Your task to perform on an android device: toggle improve location accuracy Image 0: 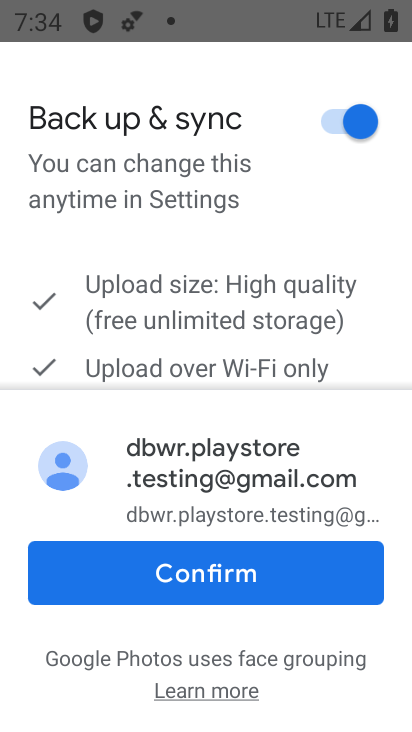
Step 0: press home button
Your task to perform on an android device: toggle improve location accuracy Image 1: 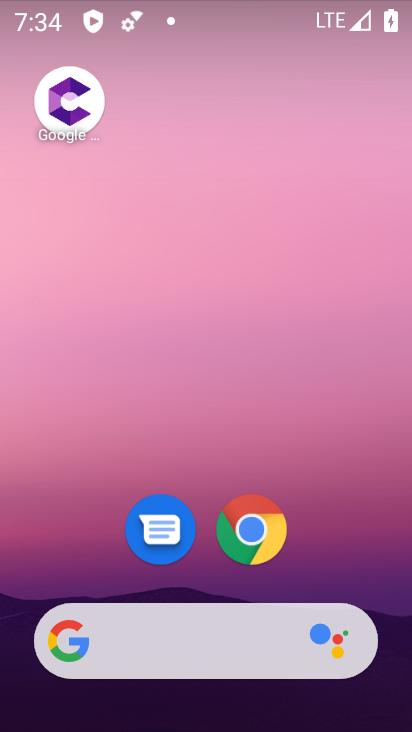
Step 1: drag from (364, 547) to (374, 173)
Your task to perform on an android device: toggle improve location accuracy Image 2: 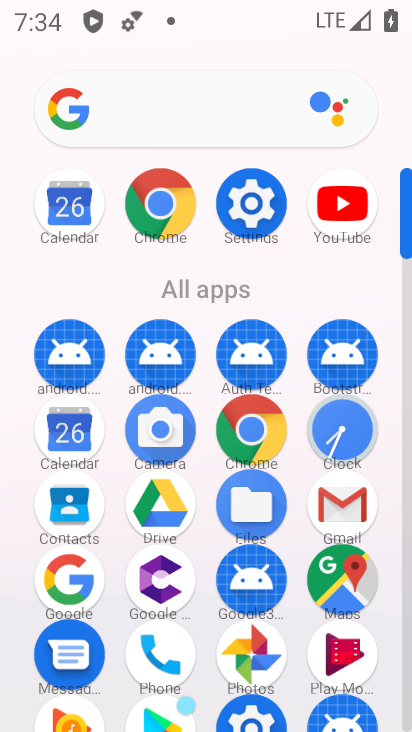
Step 2: click (264, 222)
Your task to perform on an android device: toggle improve location accuracy Image 3: 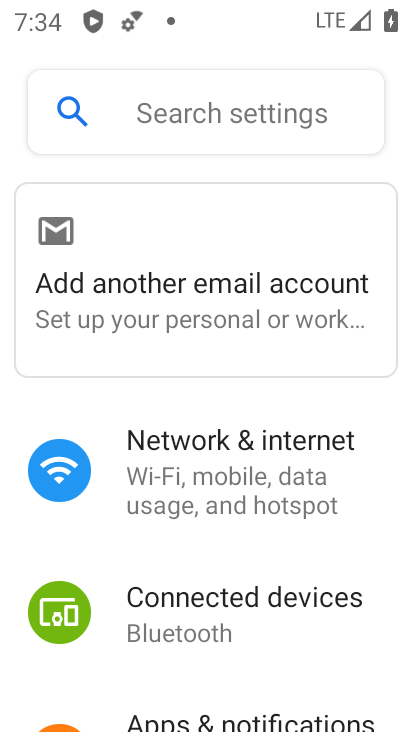
Step 3: drag from (361, 387) to (372, 294)
Your task to perform on an android device: toggle improve location accuracy Image 4: 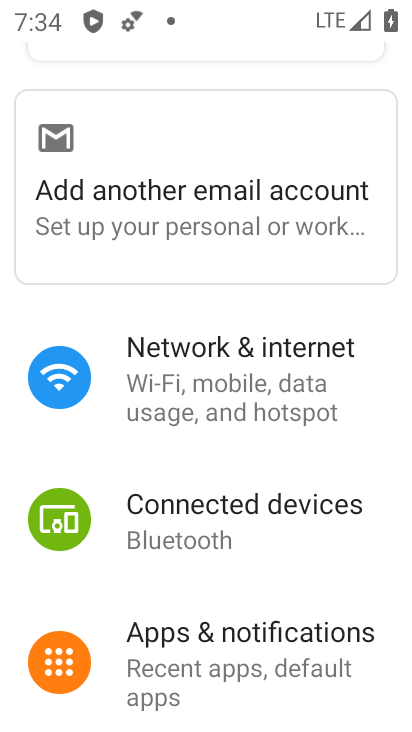
Step 4: drag from (372, 438) to (377, 276)
Your task to perform on an android device: toggle improve location accuracy Image 5: 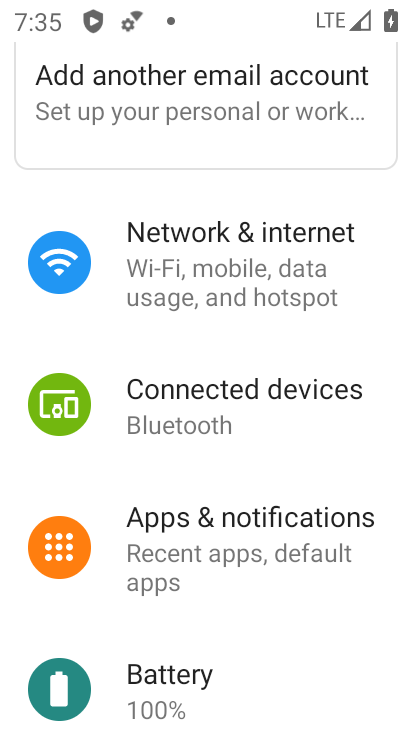
Step 5: drag from (351, 460) to (366, 335)
Your task to perform on an android device: toggle improve location accuracy Image 6: 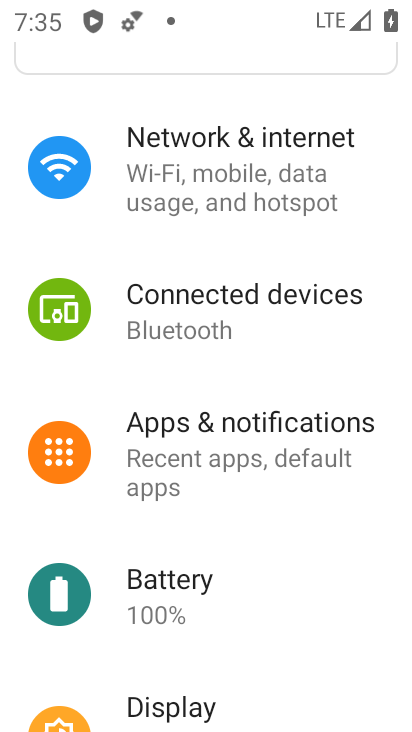
Step 6: drag from (347, 499) to (340, 362)
Your task to perform on an android device: toggle improve location accuracy Image 7: 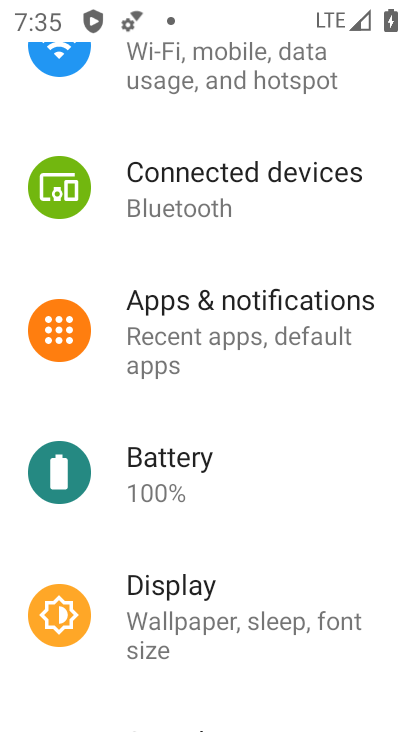
Step 7: drag from (349, 504) to (343, 359)
Your task to perform on an android device: toggle improve location accuracy Image 8: 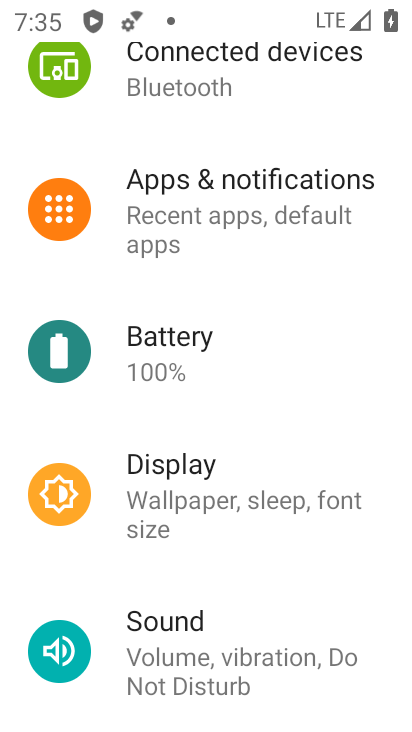
Step 8: drag from (353, 553) to (354, 426)
Your task to perform on an android device: toggle improve location accuracy Image 9: 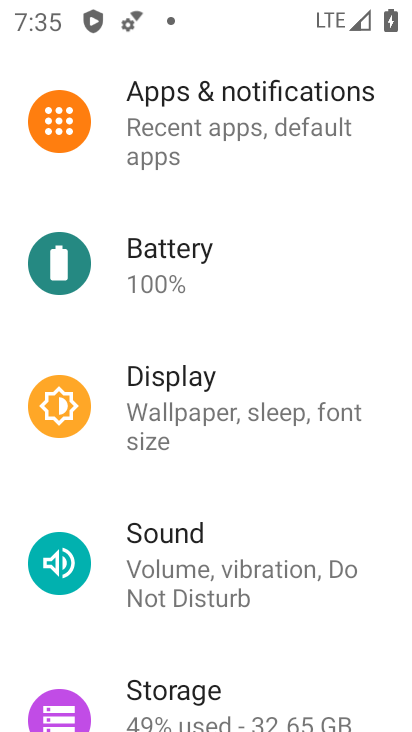
Step 9: drag from (361, 602) to (368, 511)
Your task to perform on an android device: toggle improve location accuracy Image 10: 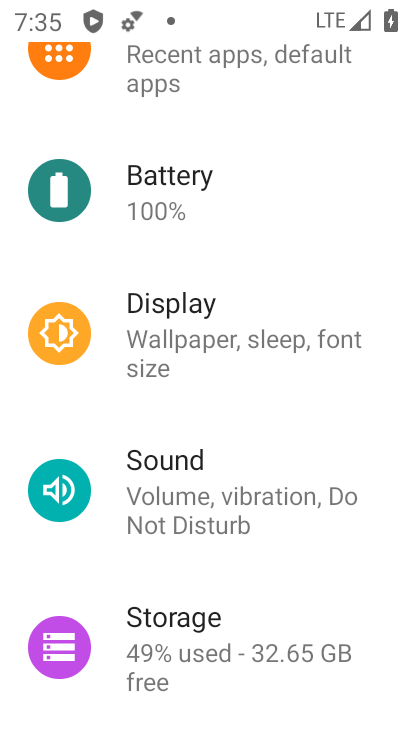
Step 10: drag from (371, 618) to (378, 484)
Your task to perform on an android device: toggle improve location accuracy Image 11: 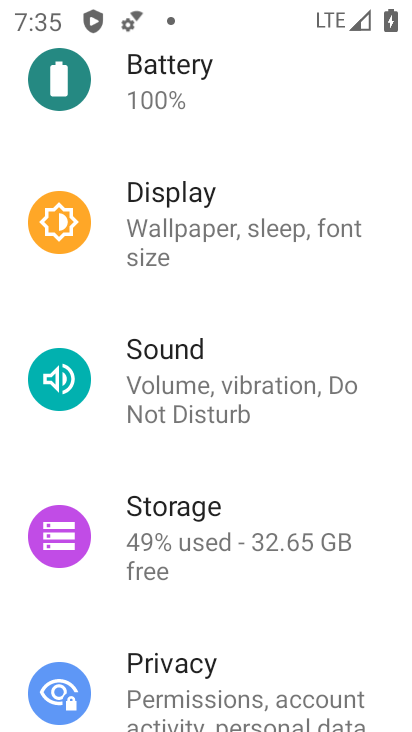
Step 11: drag from (390, 597) to (384, 426)
Your task to perform on an android device: toggle improve location accuracy Image 12: 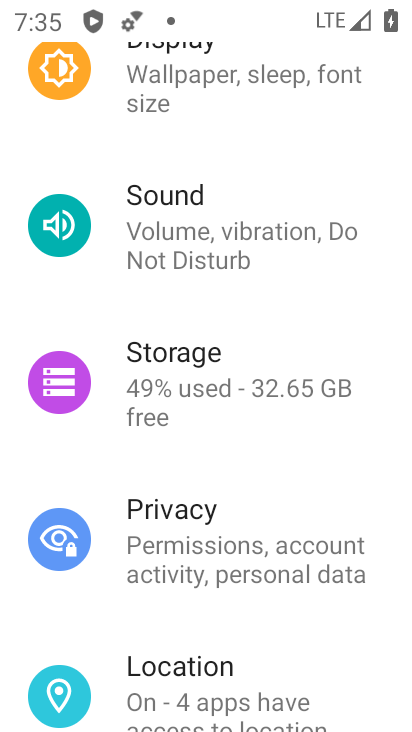
Step 12: drag from (362, 636) to (359, 451)
Your task to perform on an android device: toggle improve location accuracy Image 13: 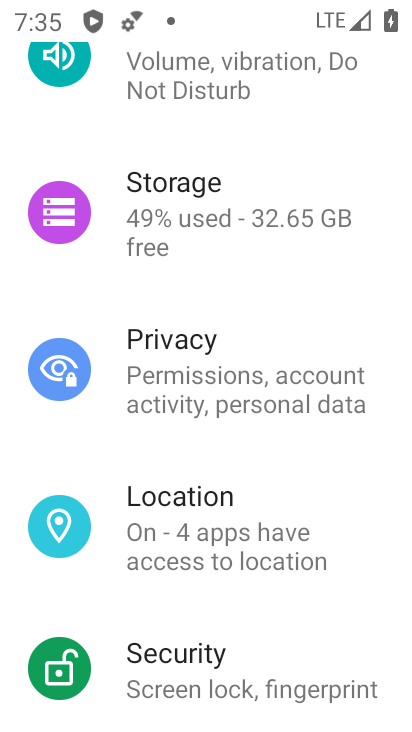
Step 13: click (279, 534)
Your task to perform on an android device: toggle improve location accuracy Image 14: 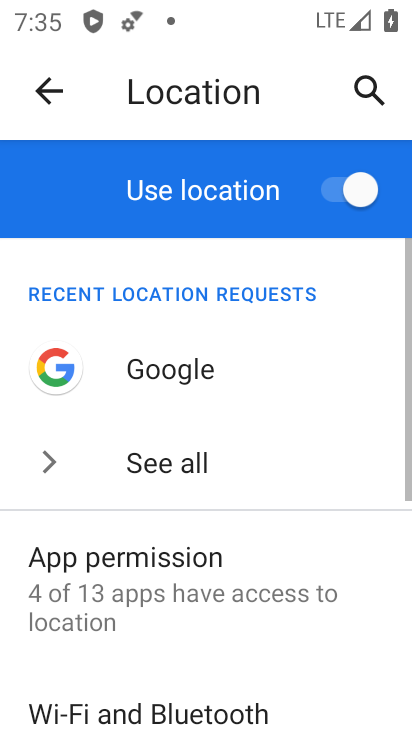
Step 14: drag from (348, 551) to (352, 453)
Your task to perform on an android device: toggle improve location accuracy Image 15: 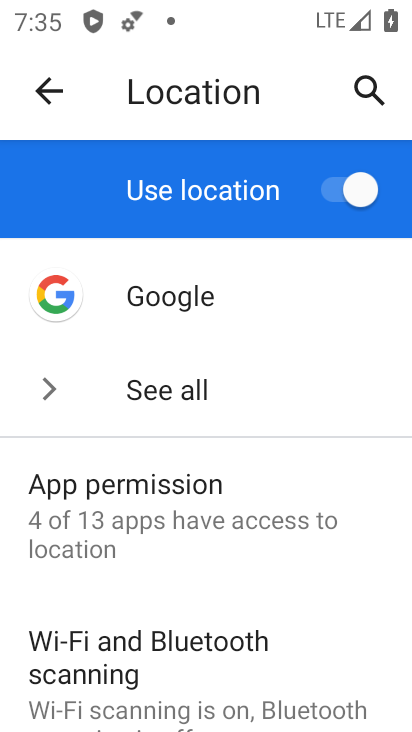
Step 15: drag from (349, 599) to (356, 435)
Your task to perform on an android device: toggle improve location accuracy Image 16: 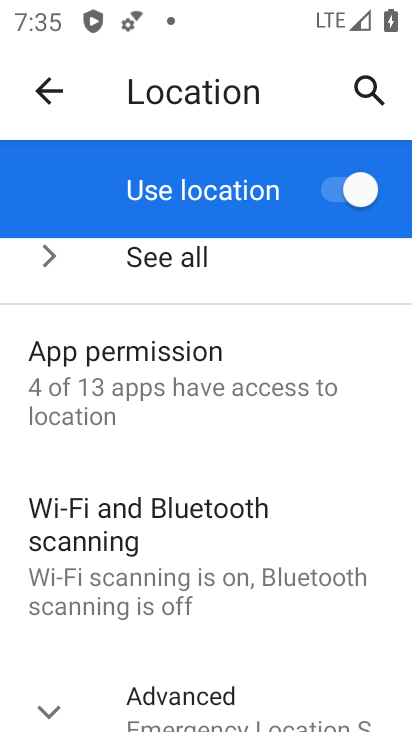
Step 16: drag from (343, 647) to (343, 444)
Your task to perform on an android device: toggle improve location accuracy Image 17: 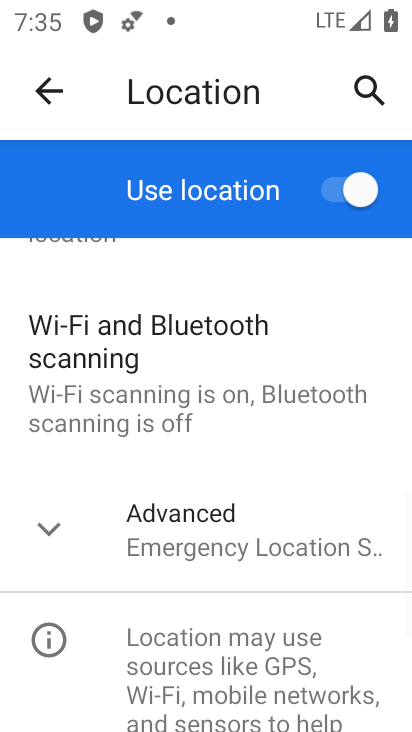
Step 17: drag from (318, 633) to (339, 472)
Your task to perform on an android device: toggle improve location accuracy Image 18: 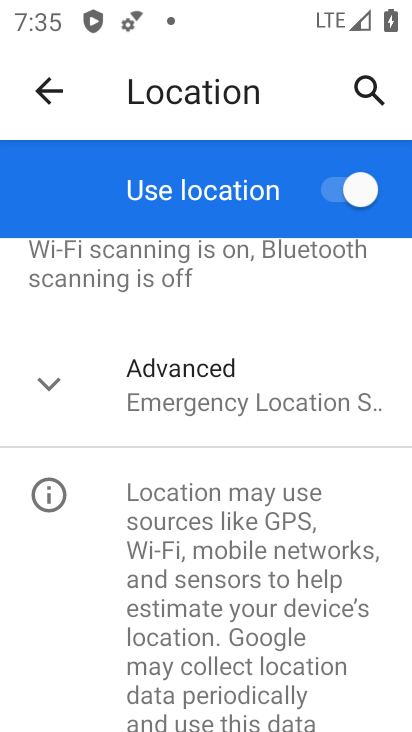
Step 18: click (313, 410)
Your task to perform on an android device: toggle improve location accuracy Image 19: 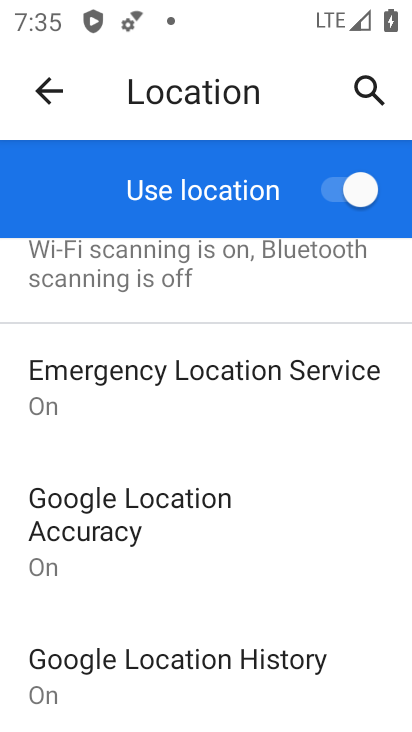
Step 19: drag from (304, 585) to (307, 478)
Your task to perform on an android device: toggle improve location accuracy Image 20: 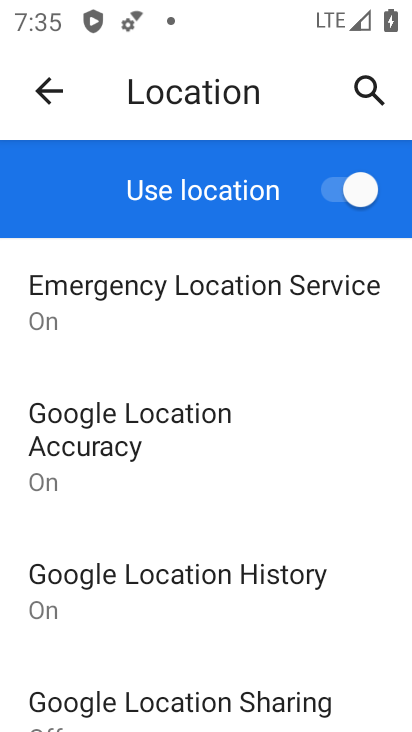
Step 20: drag from (334, 634) to (346, 438)
Your task to perform on an android device: toggle improve location accuracy Image 21: 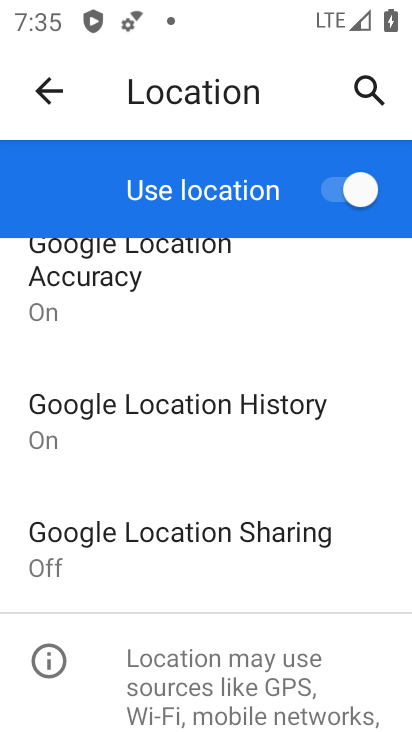
Step 21: drag from (336, 378) to (344, 556)
Your task to perform on an android device: toggle improve location accuracy Image 22: 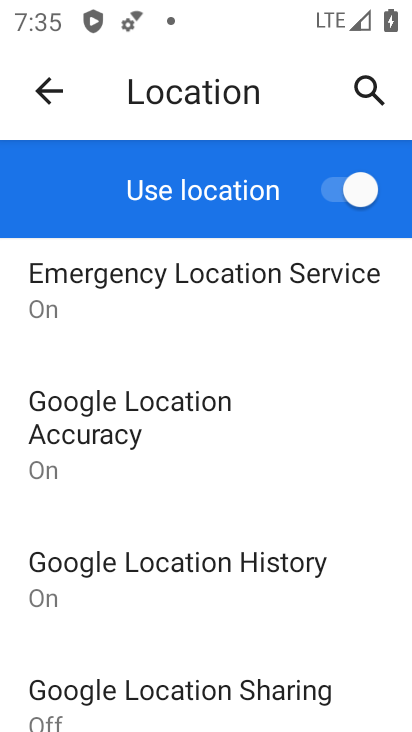
Step 22: click (166, 448)
Your task to perform on an android device: toggle improve location accuracy Image 23: 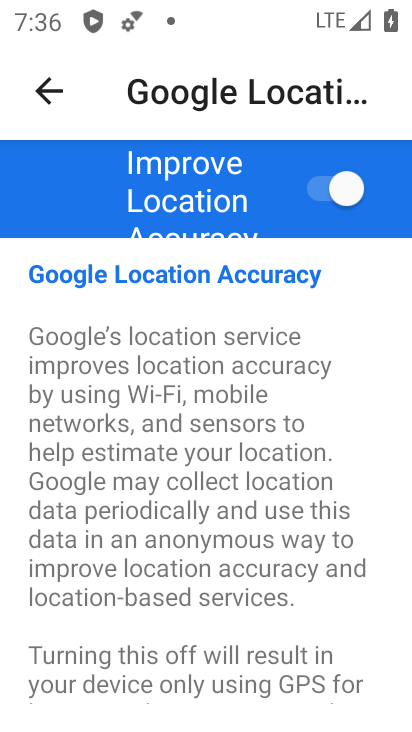
Step 23: click (343, 196)
Your task to perform on an android device: toggle improve location accuracy Image 24: 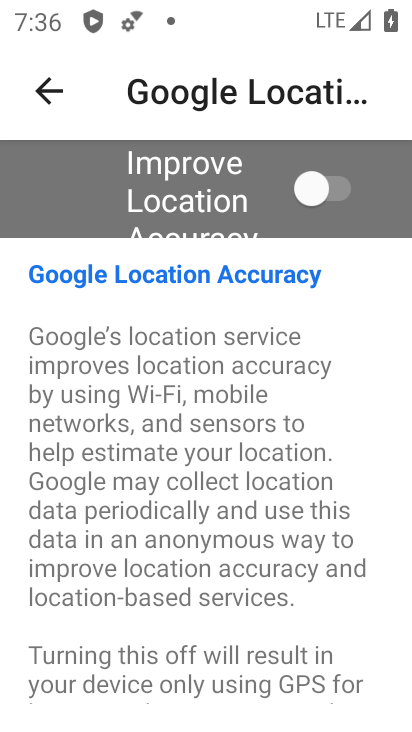
Step 24: task complete